Your task to perform on an android device: View the shopping cart on newegg.com. Image 0: 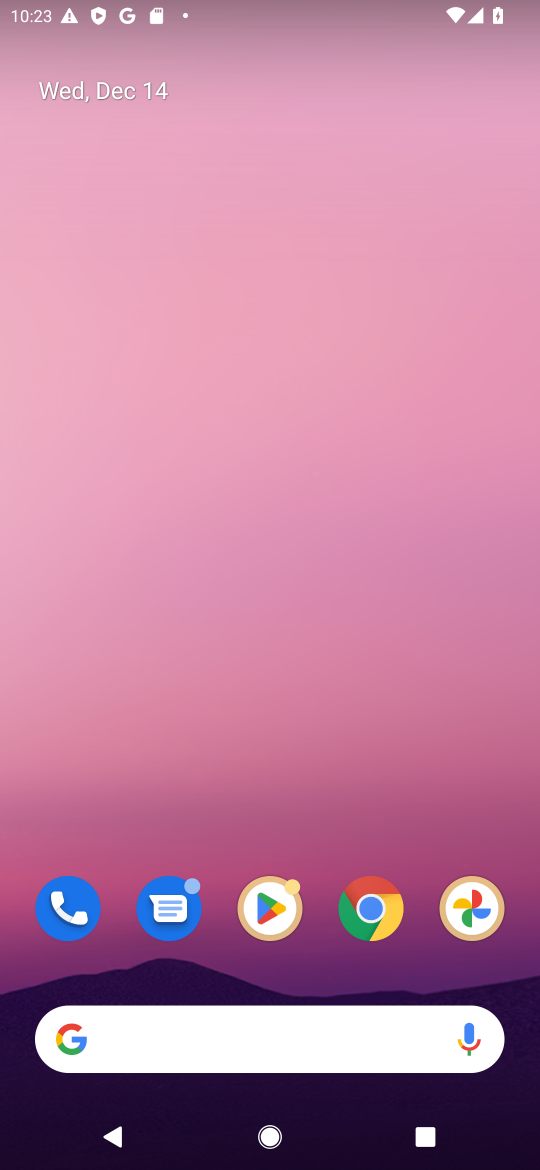
Step 0: click (371, 909)
Your task to perform on an android device: View the shopping cart on newegg.com. Image 1: 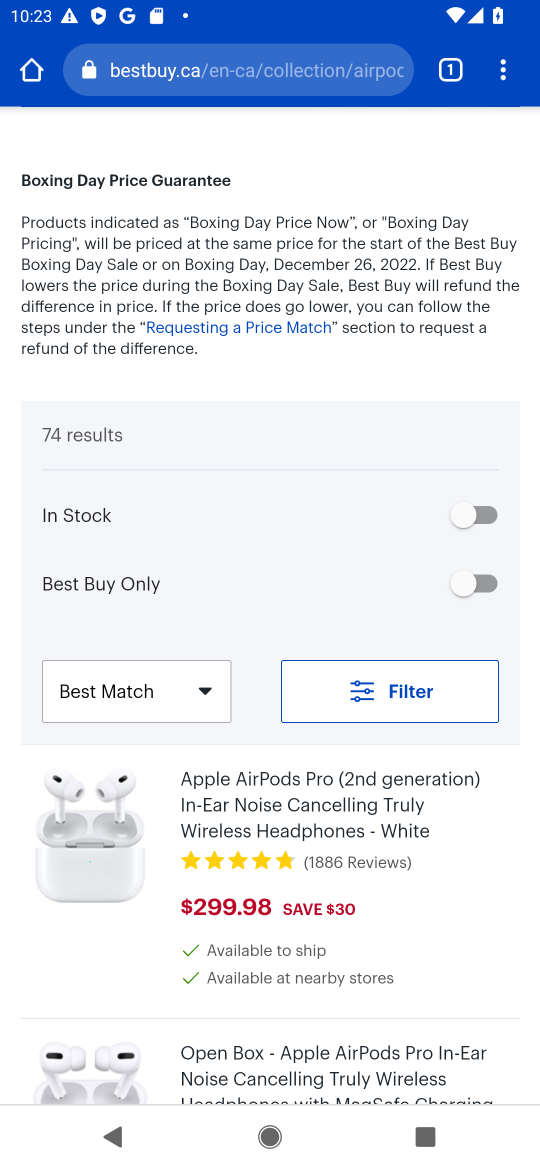
Step 1: click (253, 81)
Your task to perform on an android device: View the shopping cart on newegg.com. Image 2: 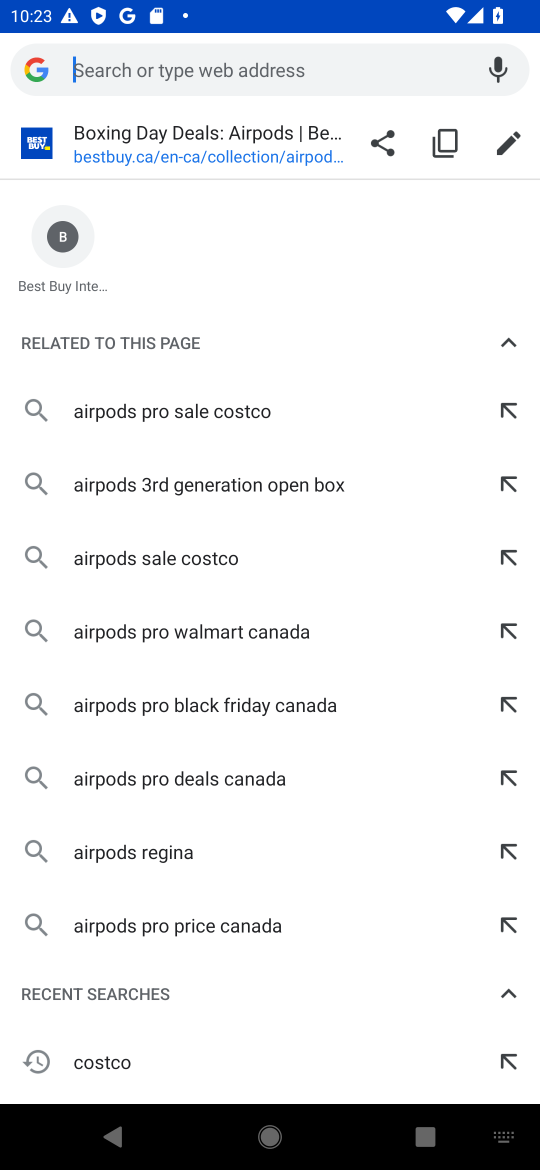
Step 2: type "newegg"
Your task to perform on an android device: View the shopping cart on newegg.com. Image 3: 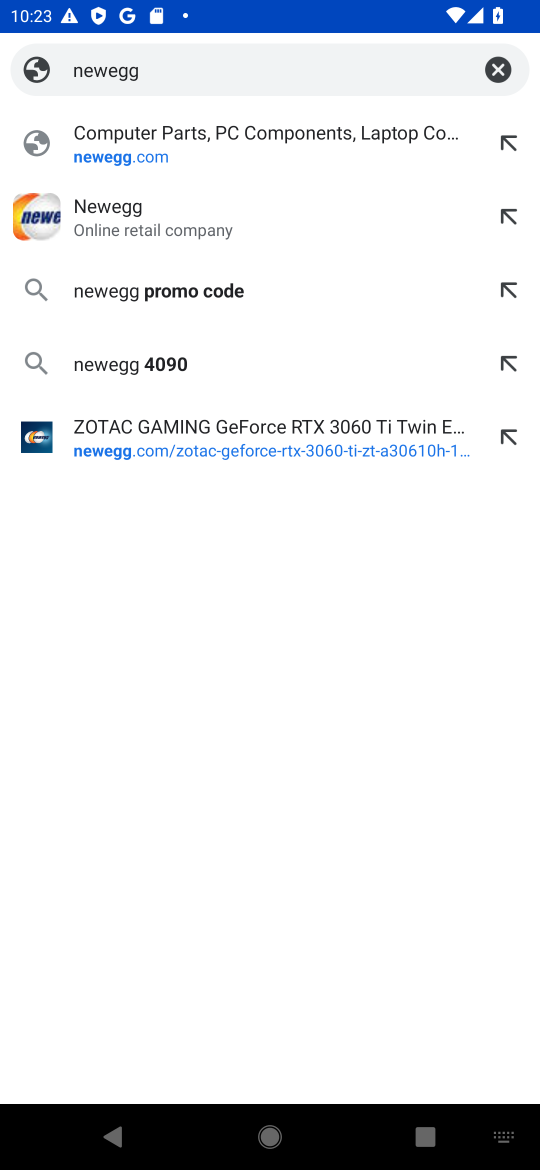
Step 3: click (136, 200)
Your task to perform on an android device: View the shopping cart on newegg.com. Image 4: 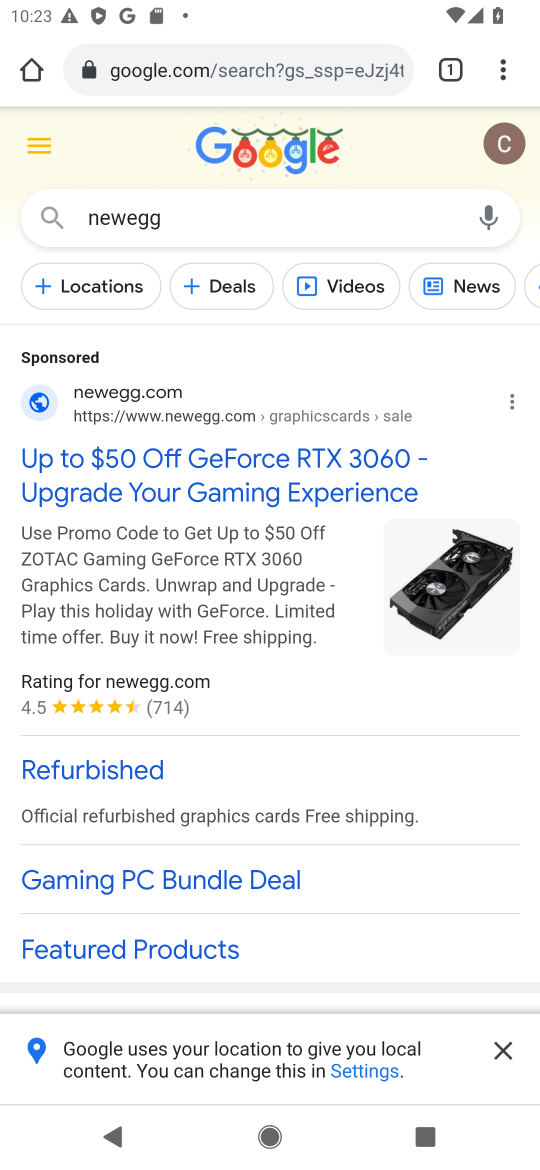
Step 4: click (250, 474)
Your task to perform on an android device: View the shopping cart on newegg.com. Image 5: 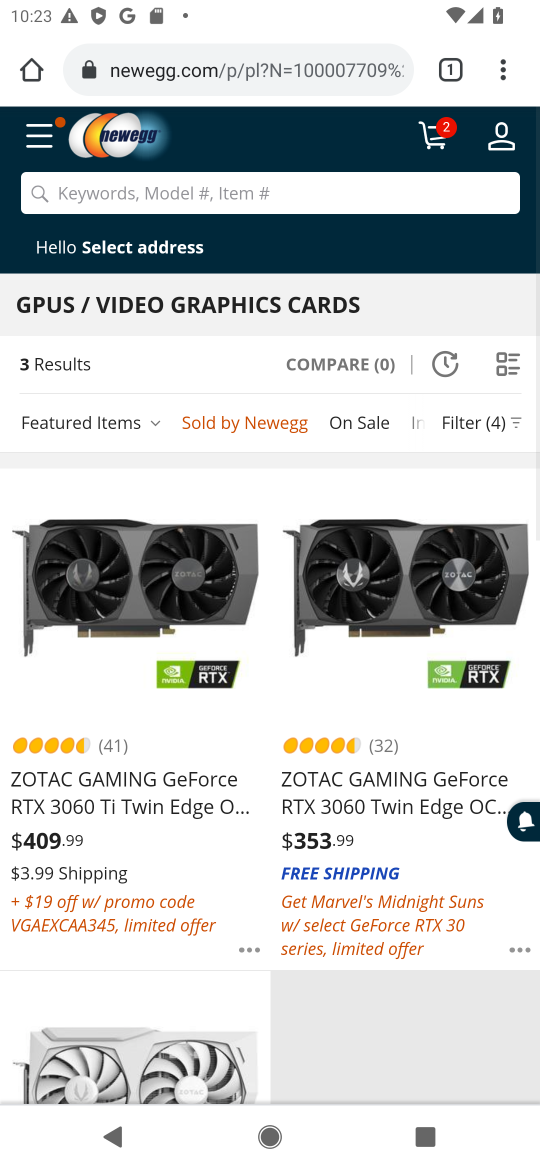
Step 5: click (109, 747)
Your task to perform on an android device: View the shopping cart on newegg.com. Image 6: 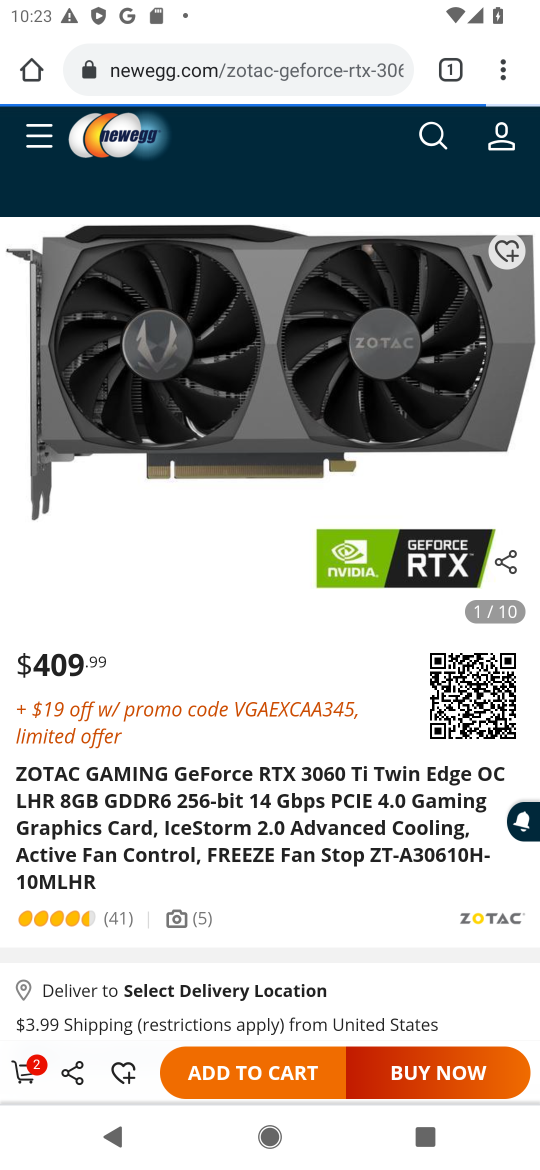
Step 6: click (245, 1071)
Your task to perform on an android device: View the shopping cart on newegg.com. Image 7: 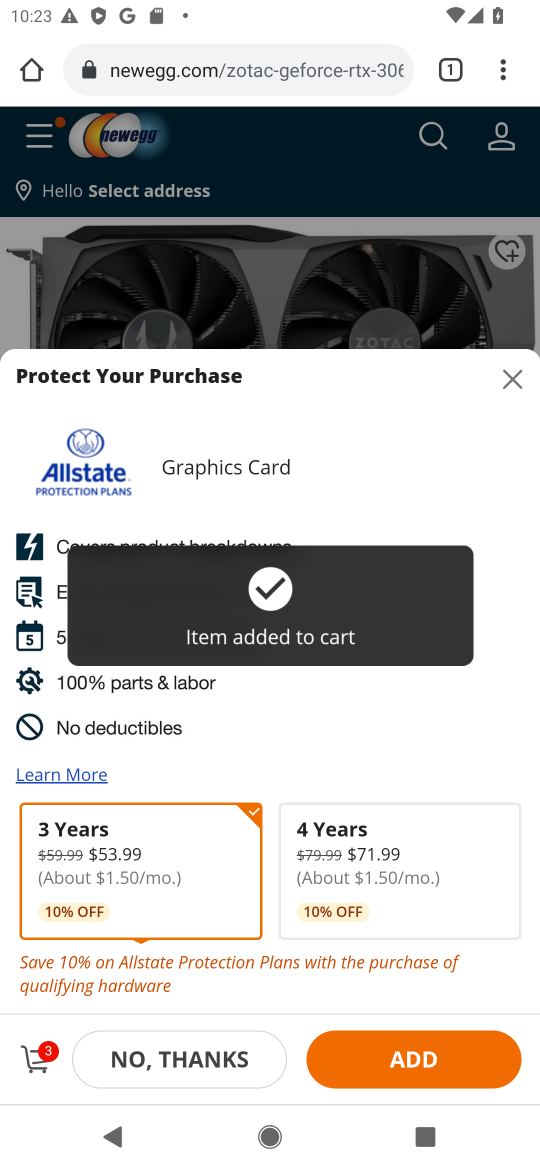
Step 7: task complete